Your task to perform on an android device: turn off javascript in the chrome app Image 0: 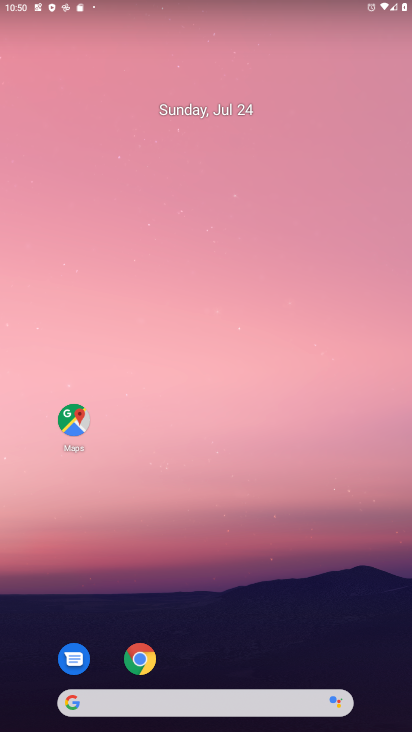
Step 0: click (139, 650)
Your task to perform on an android device: turn off javascript in the chrome app Image 1: 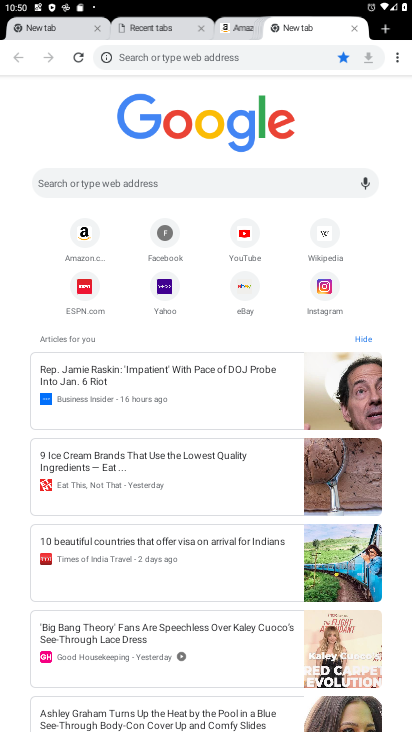
Step 1: click (398, 54)
Your task to perform on an android device: turn off javascript in the chrome app Image 2: 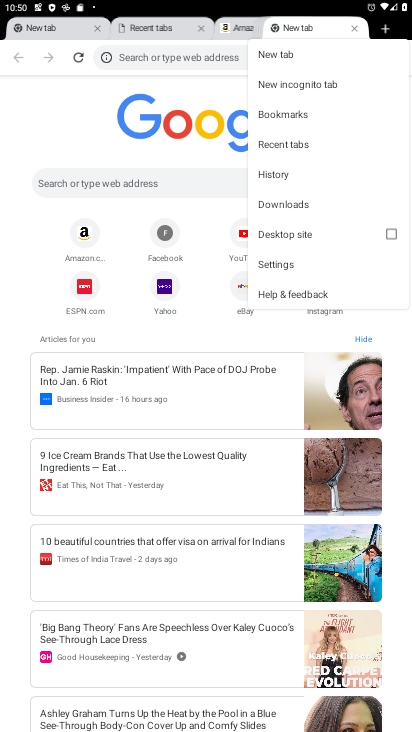
Step 2: click (292, 260)
Your task to perform on an android device: turn off javascript in the chrome app Image 3: 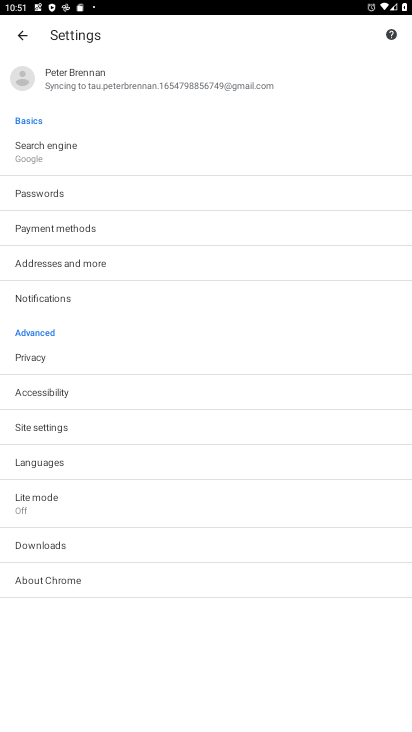
Step 3: click (41, 422)
Your task to perform on an android device: turn off javascript in the chrome app Image 4: 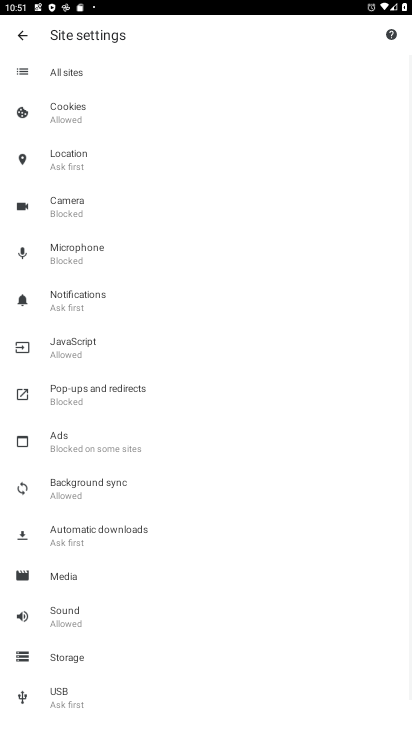
Step 4: click (70, 353)
Your task to perform on an android device: turn off javascript in the chrome app Image 5: 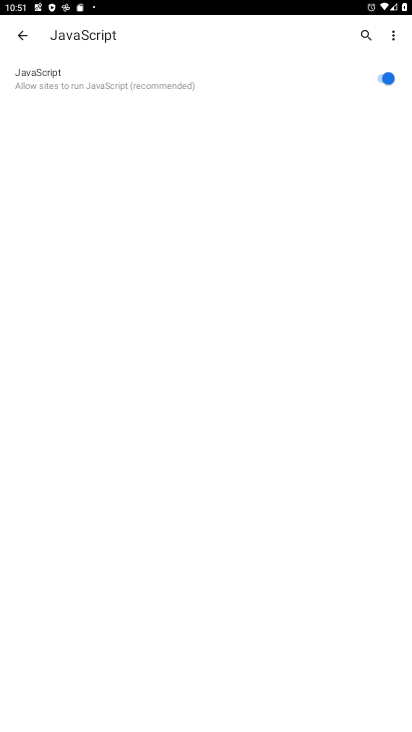
Step 5: click (378, 79)
Your task to perform on an android device: turn off javascript in the chrome app Image 6: 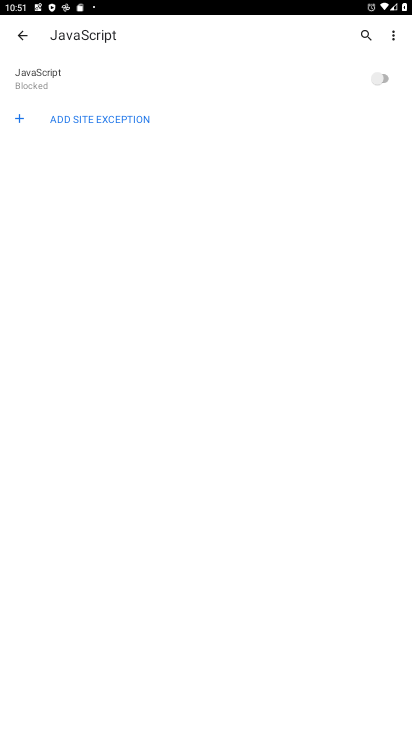
Step 6: task complete